Your task to perform on an android device: Go to wifi settings Image 0: 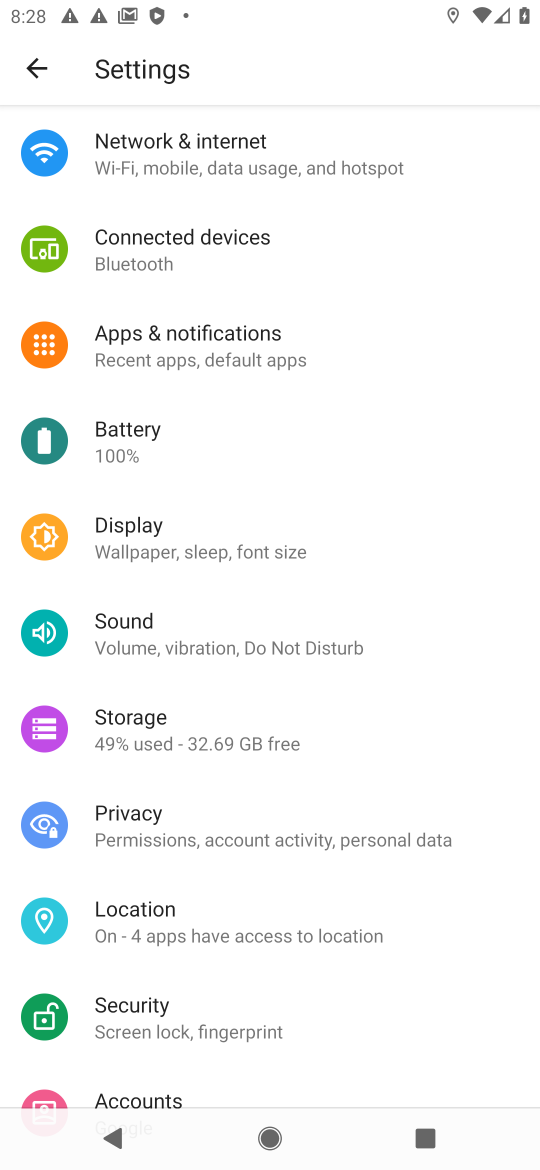
Step 0: press home button
Your task to perform on an android device: Go to wifi settings Image 1: 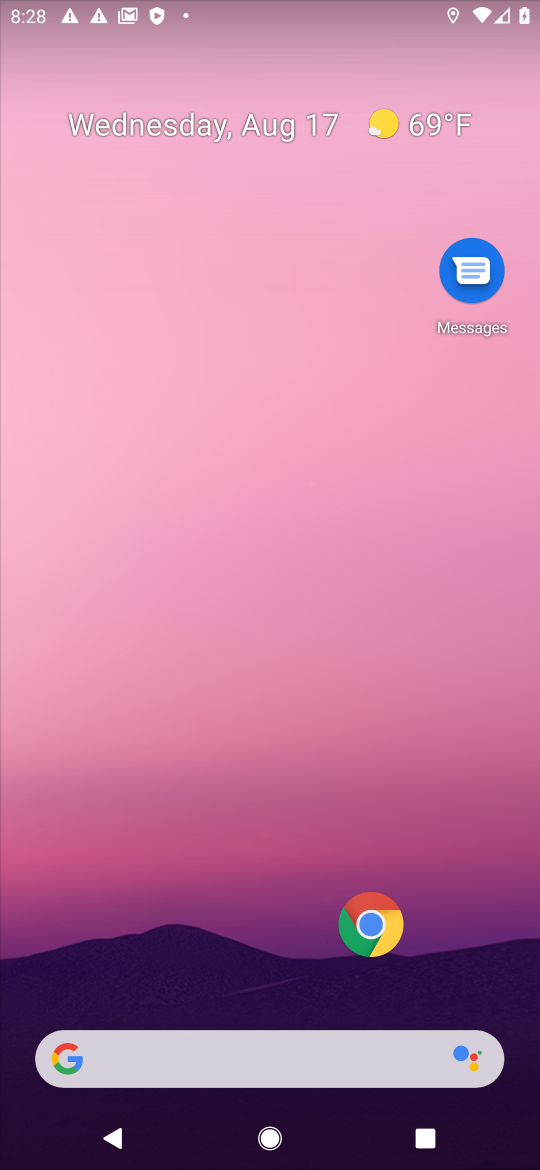
Step 1: drag from (272, 2) to (340, 874)
Your task to perform on an android device: Go to wifi settings Image 2: 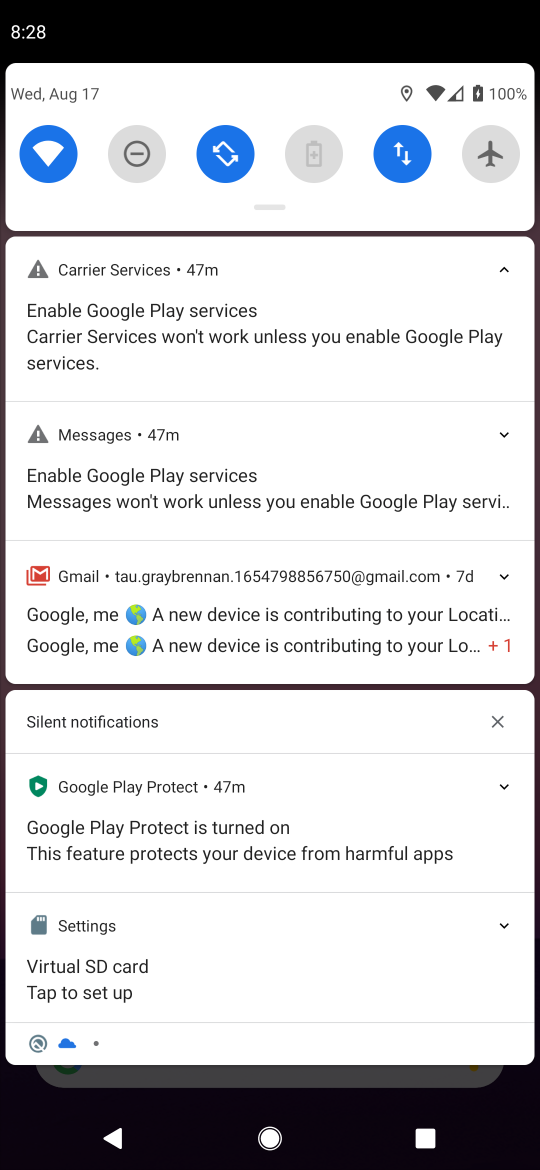
Step 2: click (65, 144)
Your task to perform on an android device: Go to wifi settings Image 3: 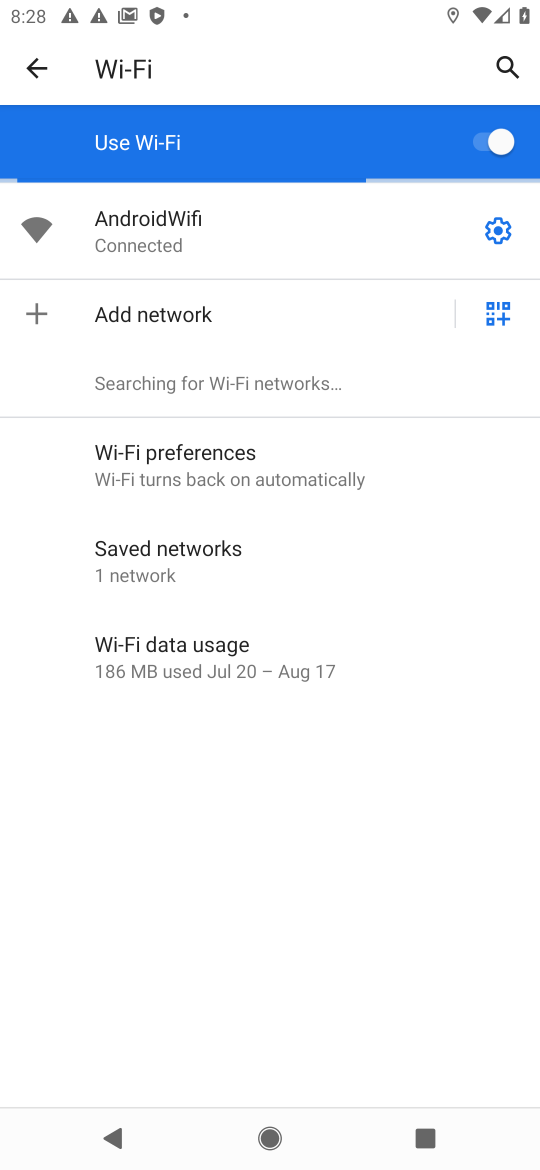
Step 3: task complete